Your task to perform on an android device: Show me the alarms in the clock app Image 0: 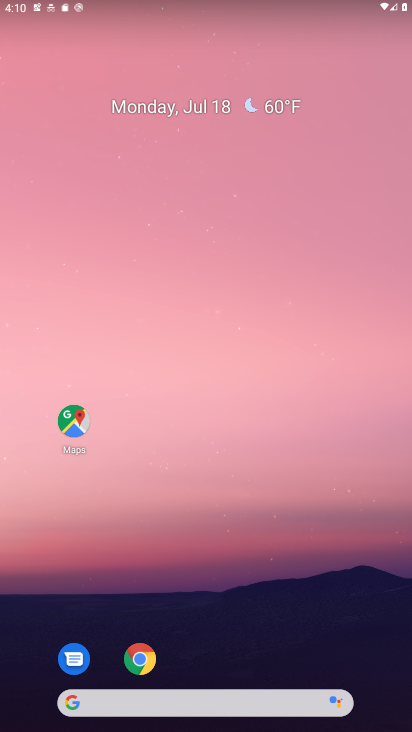
Step 0: drag from (267, 694) to (176, 16)
Your task to perform on an android device: Show me the alarms in the clock app Image 1: 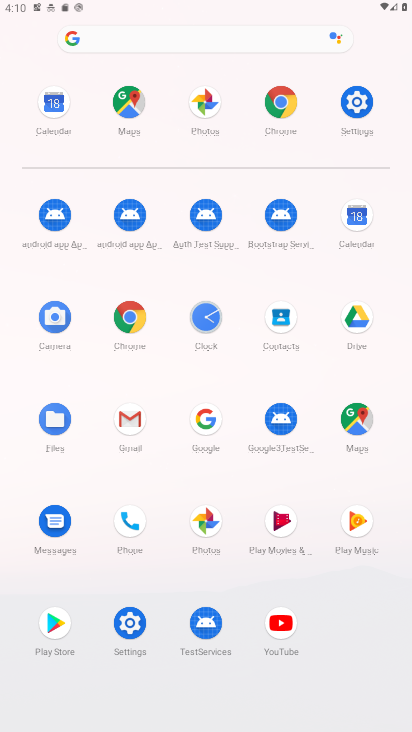
Step 1: click (207, 324)
Your task to perform on an android device: Show me the alarms in the clock app Image 2: 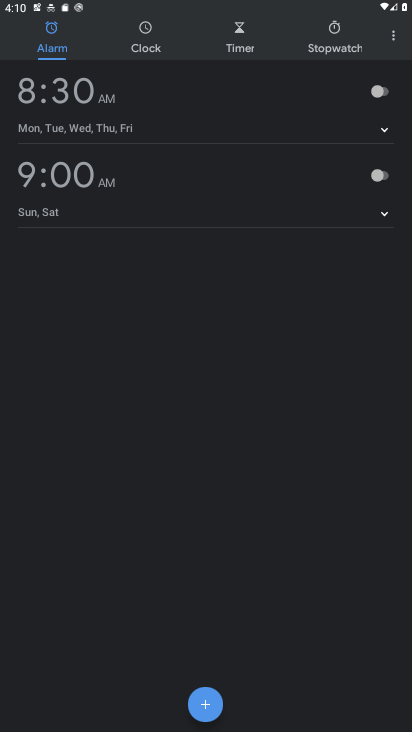
Step 2: task complete